Your task to perform on an android device: Open calendar and show me the first week of next month Image 0: 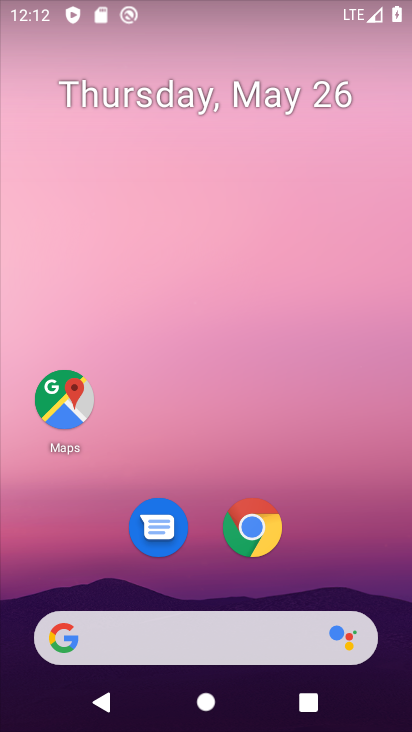
Step 0: click (175, 86)
Your task to perform on an android device: Open calendar and show me the first week of next month Image 1: 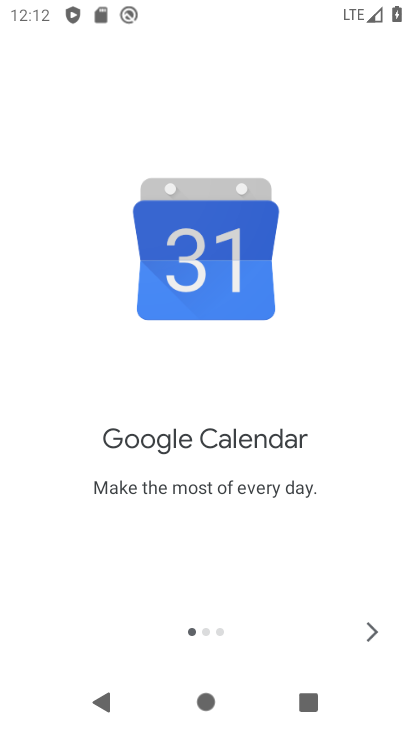
Step 1: click (364, 637)
Your task to perform on an android device: Open calendar and show me the first week of next month Image 2: 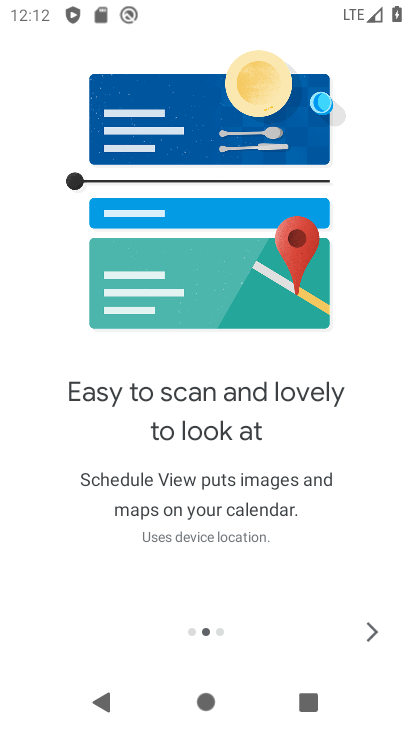
Step 2: click (364, 637)
Your task to perform on an android device: Open calendar and show me the first week of next month Image 3: 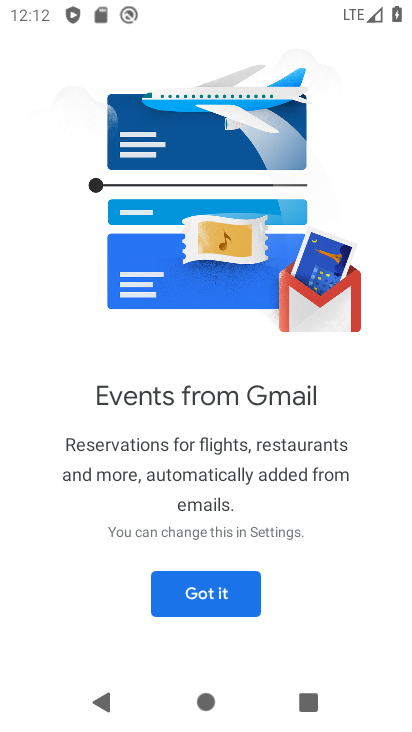
Step 3: click (218, 585)
Your task to perform on an android device: Open calendar and show me the first week of next month Image 4: 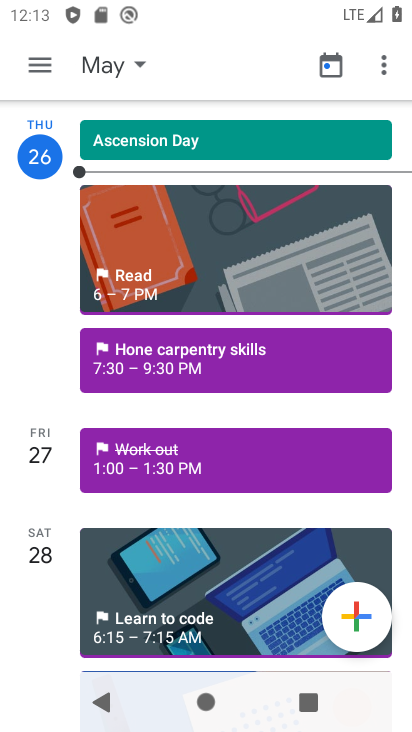
Step 4: click (101, 81)
Your task to perform on an android device: Open calendar and show me the first week of next month Image 5: 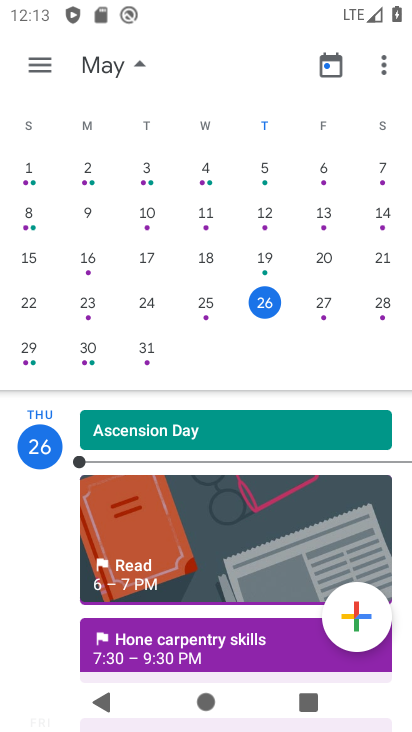
Step 5: drag from (371, 343) to (96, 354)
Your task to perform on an android device: Open calendar and show me the first week of next month Image 6: 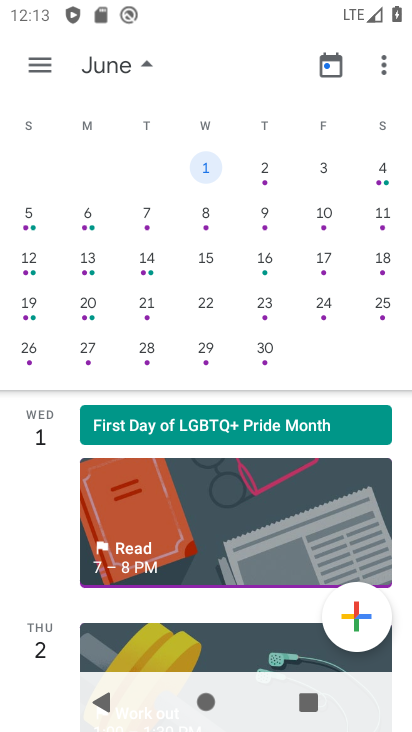
Step 6: click (199, 172)
Your task to perform on an android device: Open calendar and show me the first week of next month Image 7: 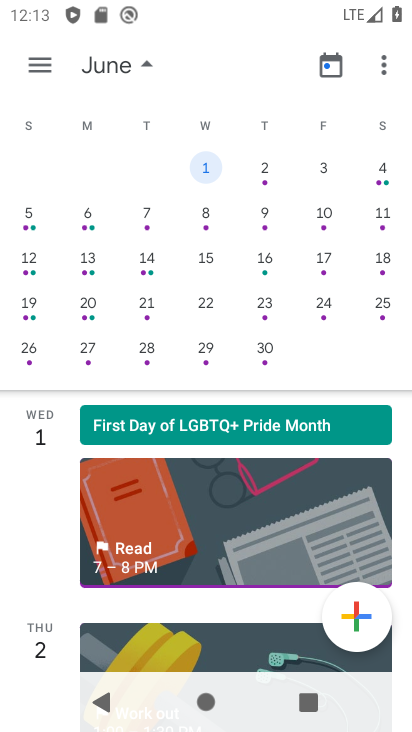
Step 7: click (256, 168)
Your task to perform on an android device: Open calendar and show me the first week of next month Image 8: 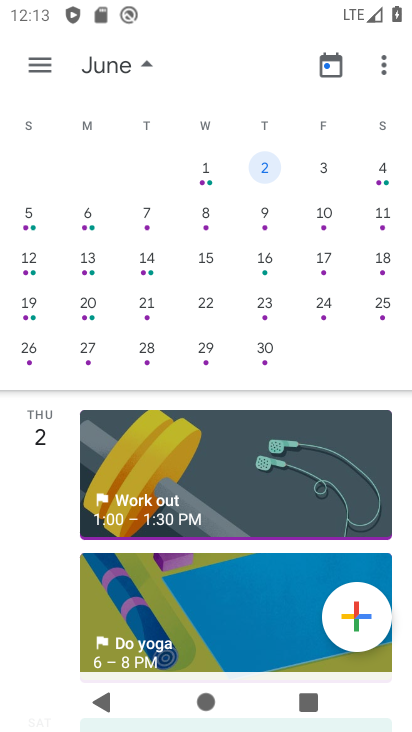
Step 8: task complete